Your task to perform on an android device: Search for seafood restaurants on Google Maps Image 0: 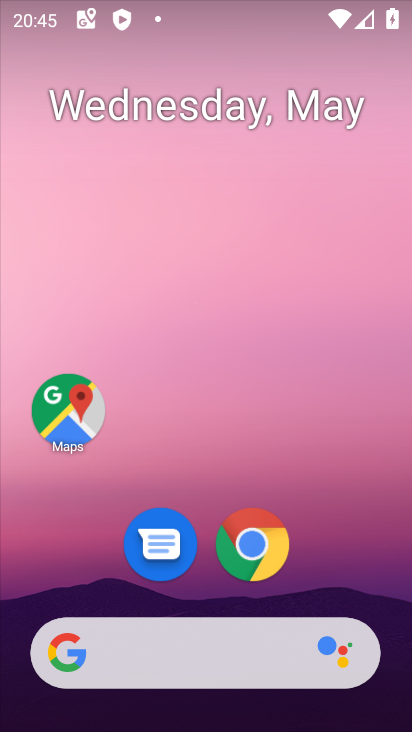
Step 0: click (73, 395)
Your task to perform on an android device: Search for seafood restaurants on Google Maps Image 1: 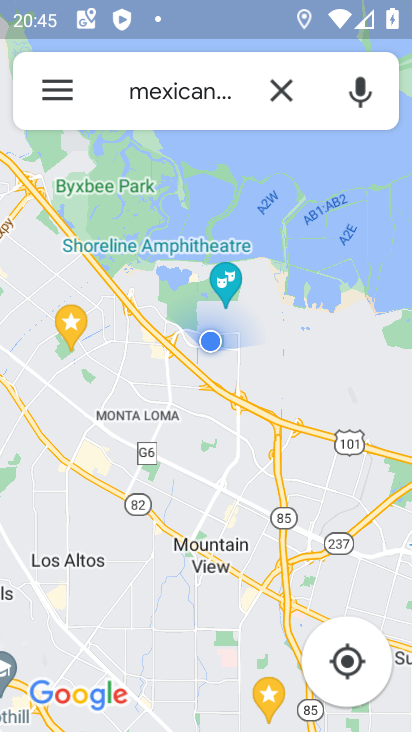
Step 1: click (275, 86)
Your task to perform on an android device: Search for seafood restaurants on Google Maps Image 2: 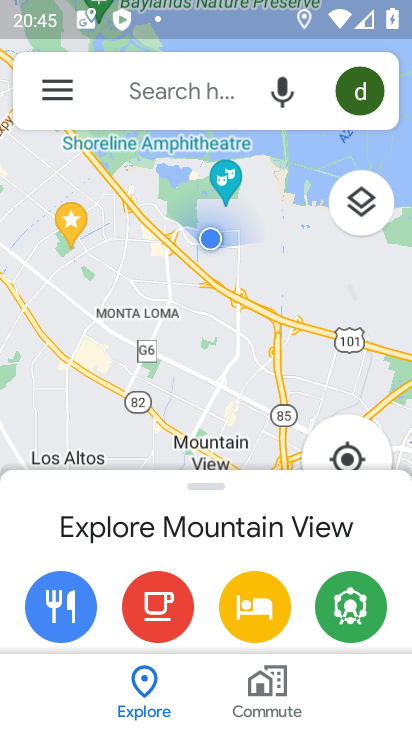
Step 2: click (177, 83)
Your task to perform on an android device: Search for seafood restaurants on Google Maps Image 3: 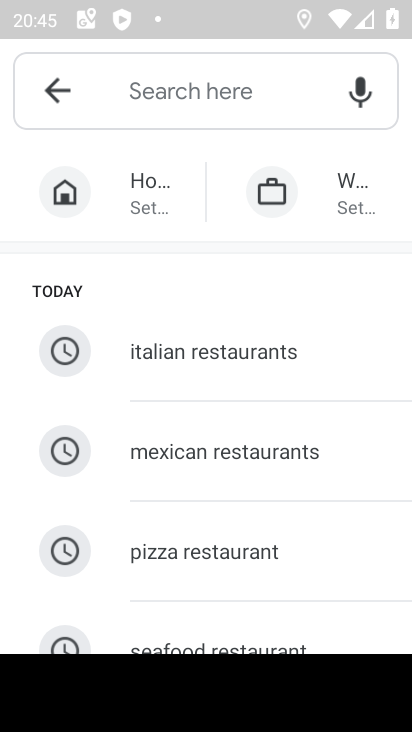
Step 3: click (197, 641)
Your task to perform on an android device: Search for seafood restaurants on Google Maps Image 4: 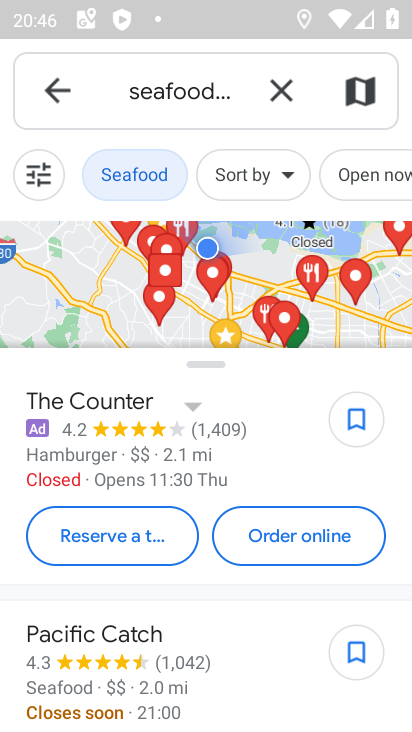
Step 4: task complete